Your task to perform on an android device: find which apps use the phone's location Image 0: 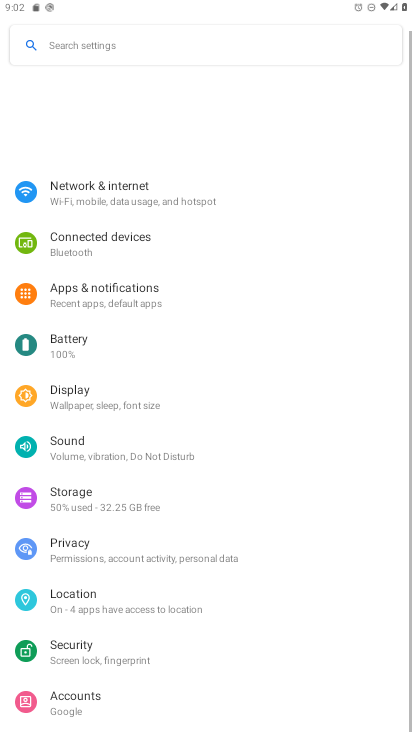
Step 0: press home button
Your task to perform on an android device: find which apps use the phone's location Image 1: 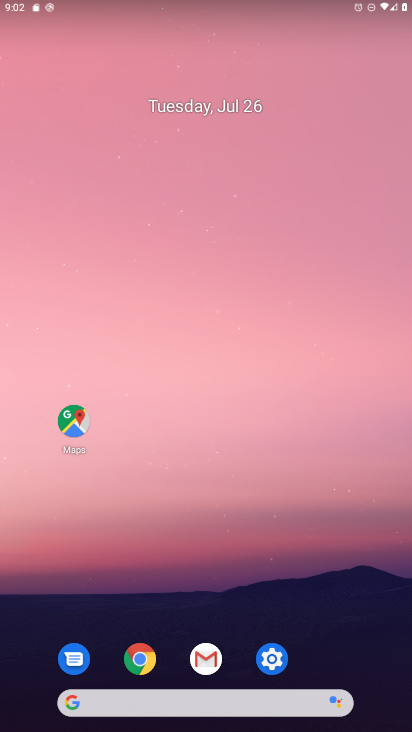
Step 1: click (270, 655)
Your task to perform on an android device: find which apps use the phone's location Image 2: 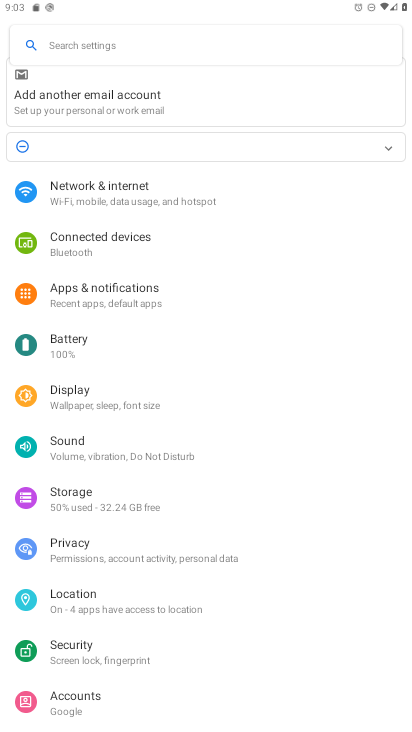
Step 2: click (115, 596)
Your task to perform on an android device: find which apps use the phone's location Image 3: 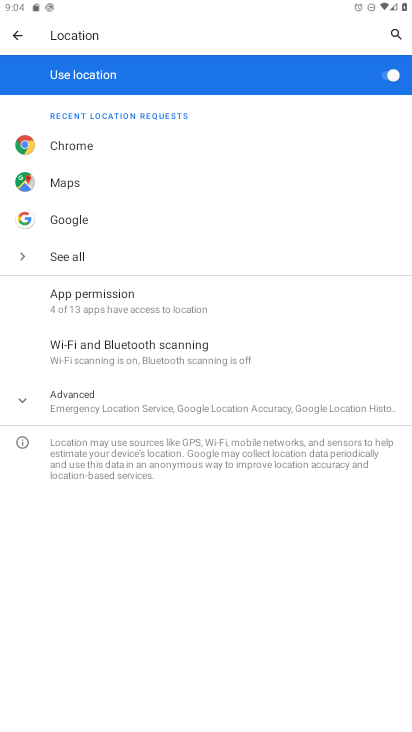
Step 3: task complete